Your task to perform on an android device: Open the map Image 0: 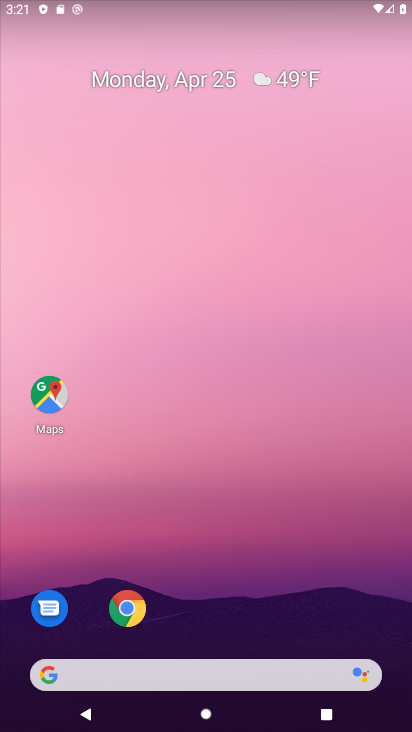
Step 0: click (46, 387)
Your task to perform on an android device: Open the map Image 1: 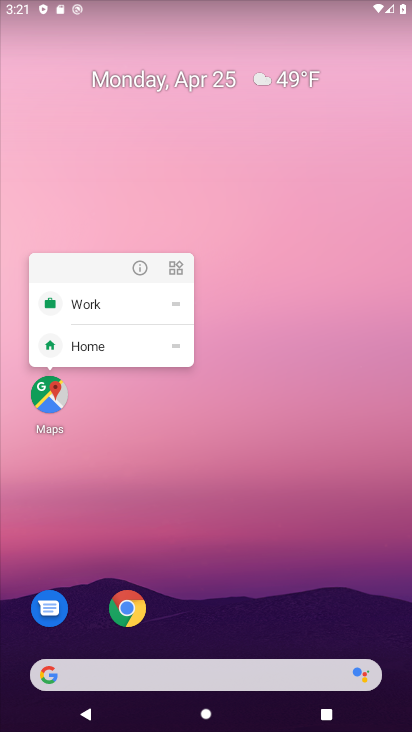
Step 1: click (55, 388)
Your task to perform on an android device: Open the map Image 2: 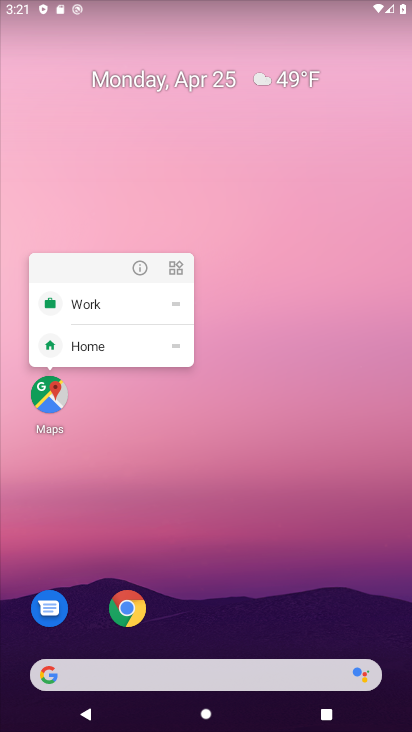
Step 2: click (39, 412)
Your task to perform on an android device: Open the map Image 3: 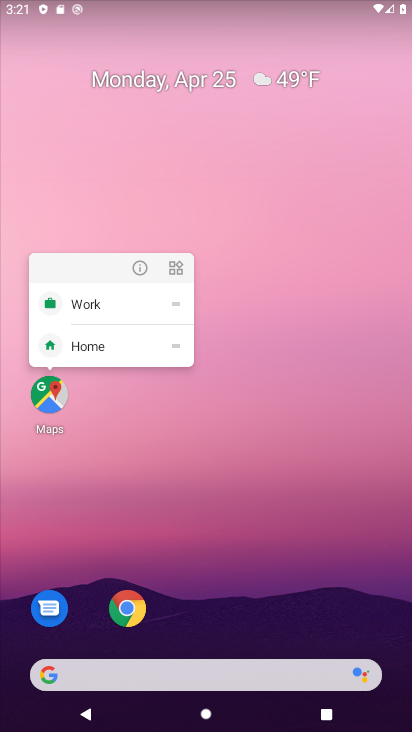
Step 3: click (42, 414)
Your task to perform on an android device: Open the map Image 4: 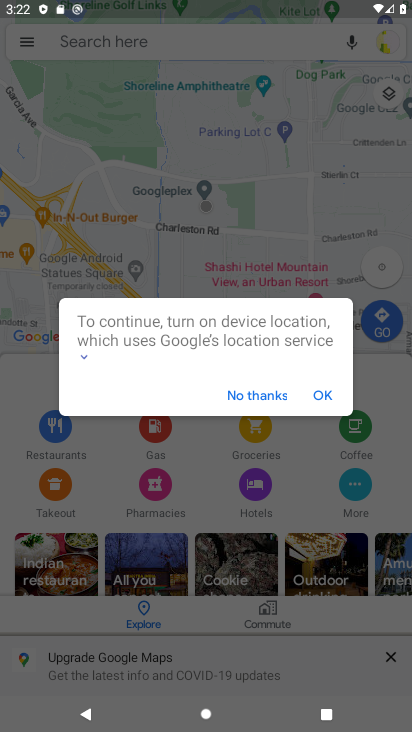
Step 4: click (317, 403)
Your task to perform on an android device: Open the map Image 5: 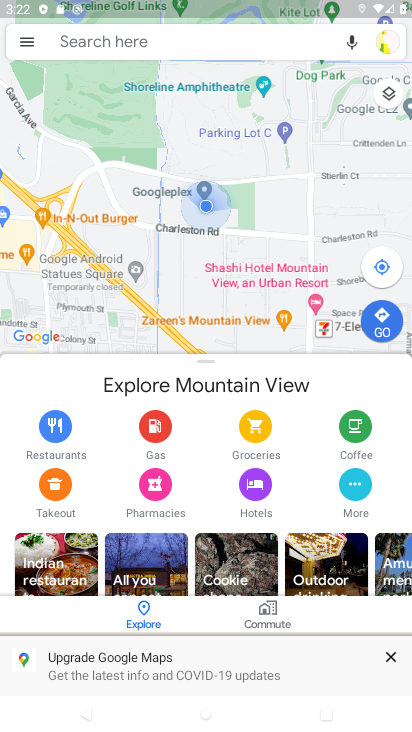
Step 5: task complete